Your task to perform on an android device: change the clock display to digital Image 0: 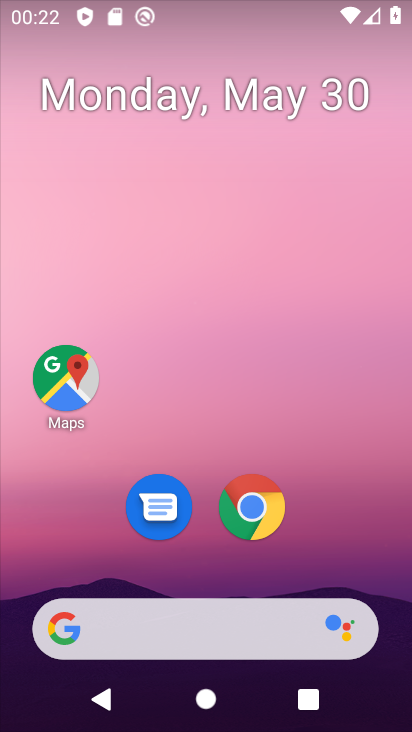
Step 0: drag from (355, 540) to (319, 273)
Your task to perform on an android device: change the clock display to digital Image 1: 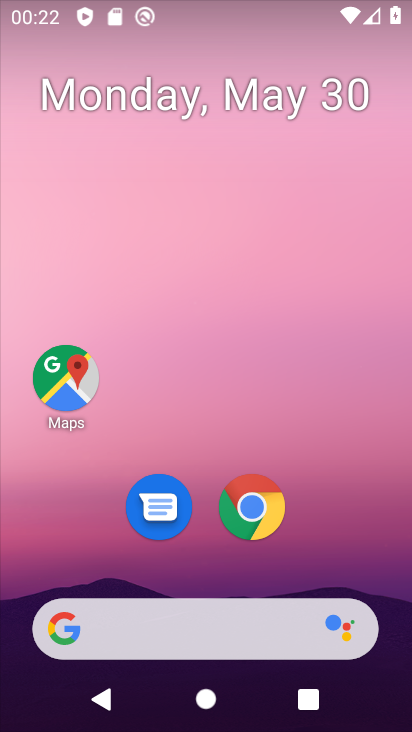
Step 1: drag from (339, 553) to (322, 188)
Your task to perform on an android device: change the clock display to digital Image 2: 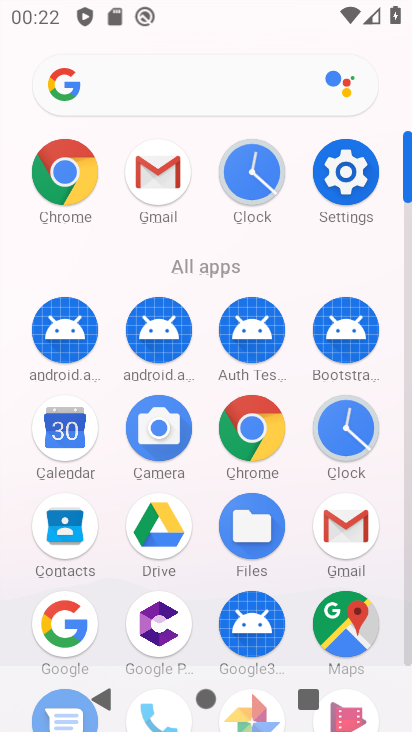
Step 2: click (336, 430)
Your task to perform on an android device: change the clock display to digital Image 3: 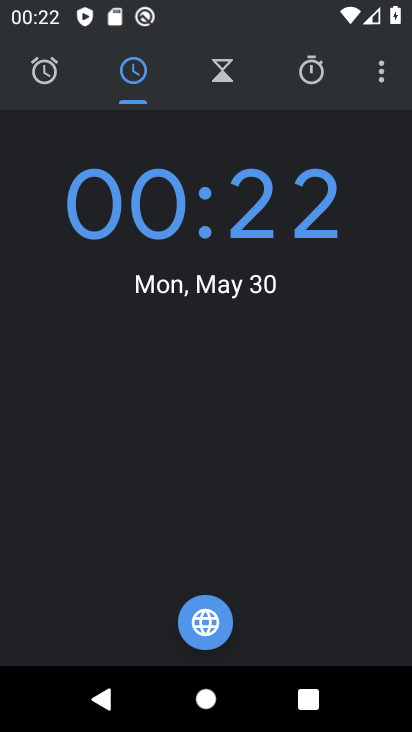
Step 3: click (376, 78)
Your task to perform on an android device: change the clock display to digital Image 4: 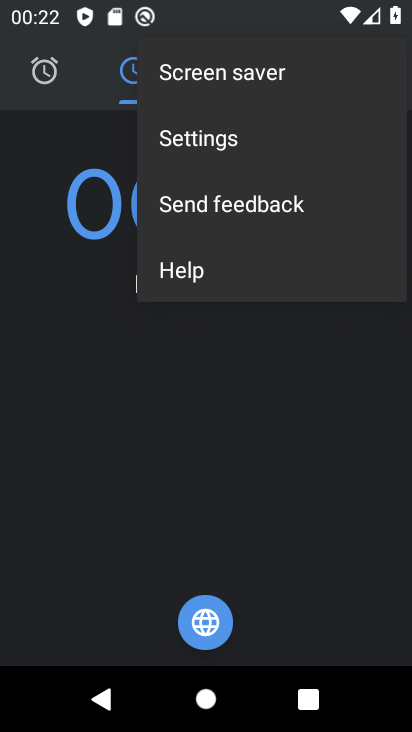
Step 4: click (219, 151)
Your task to perform on an android device: change the clock display to digital Image 5: 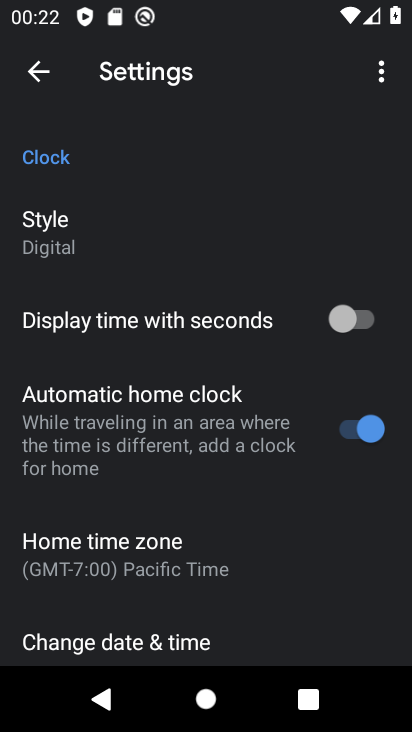
Step 5: drag from (196, 542) to (201, 285)
Your task to perform on an android device: change the clock display to digital Image 6: 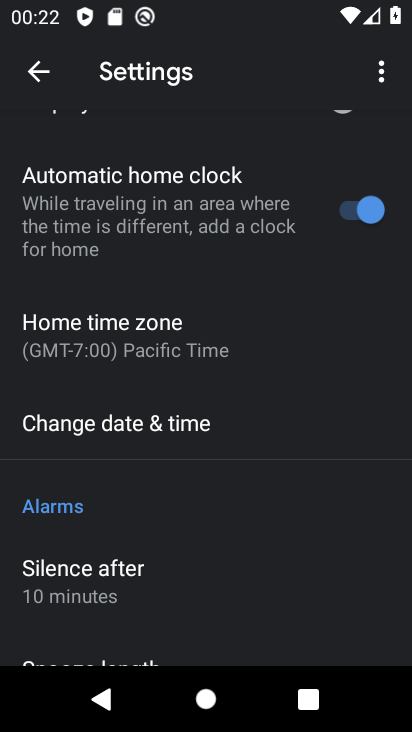
Step 6: drag from (223, 545) to (205, 356)
Your task to perform on an android device: change the clock display to digital Image 7: 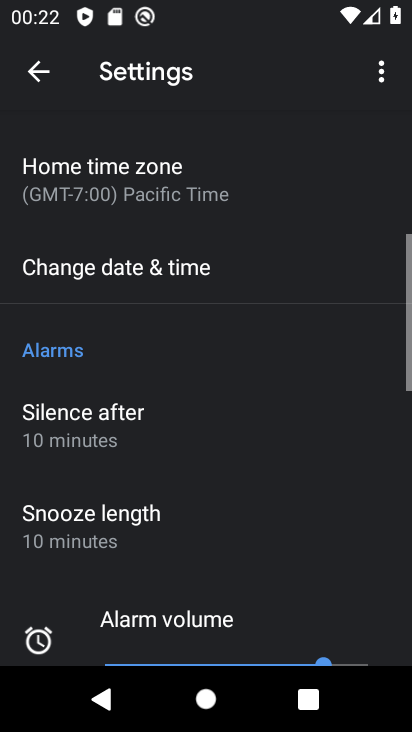
Step 7: drag from (204, 345) to (218, 671)
Your task to perform on an android device: change the clock display to digital Image 8: 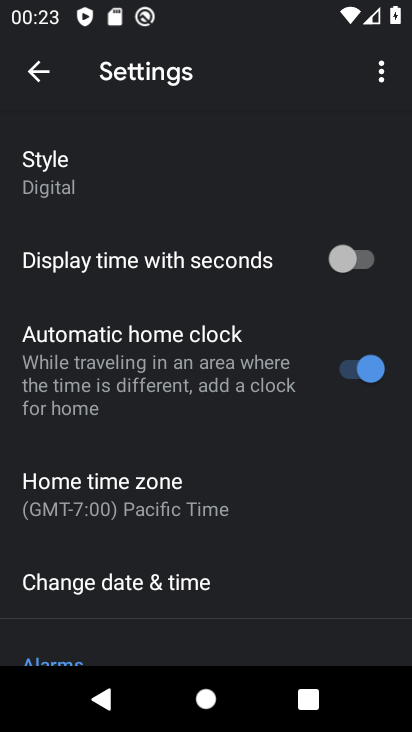
Step 8: click (77, 192)
Your task to perform on an android device: change the clock display to digital Image 9: 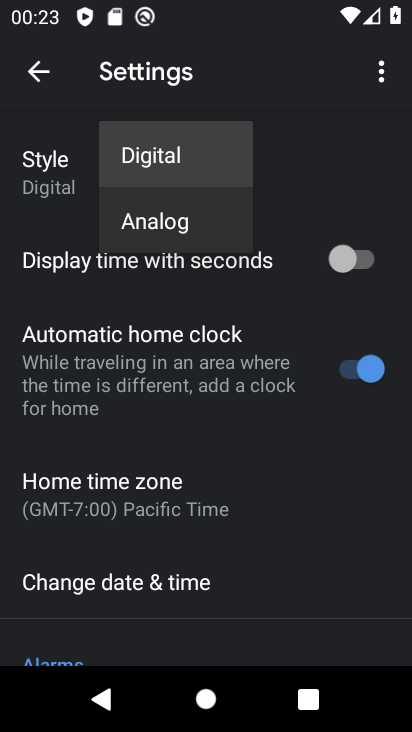
Step 9: click (153, 162)
Your task to perform on an android device: change the clock display to digital Image 10: 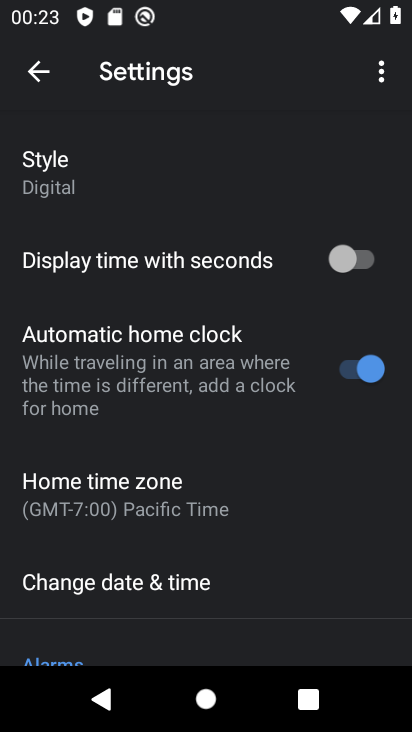
Step 10: task complete